Your task to perform on an android device: Open wifi settings Image 0: 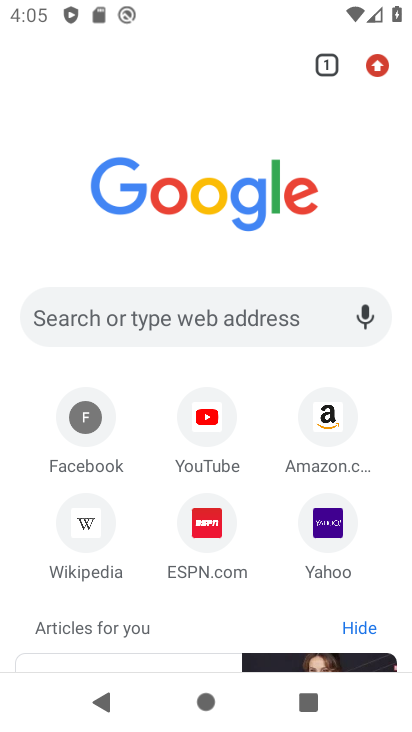
Step 0: press home button
Your task to perform on an android device: Open wifi settings Image 1: 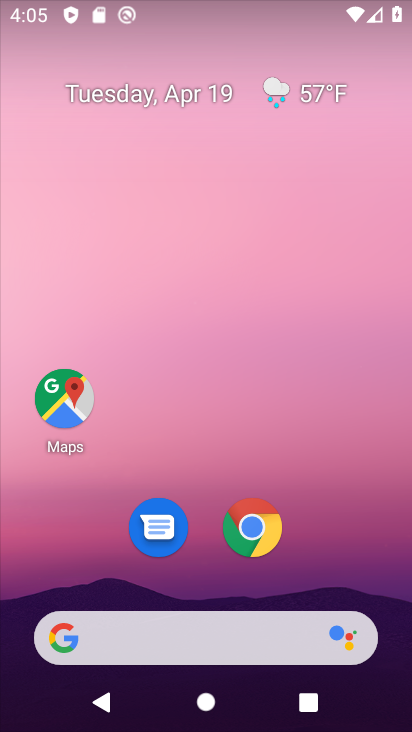
Step 1: drag from (380, 582) to (306, 79)
Your task to perform on an android device: Open wifi settings Image 2: 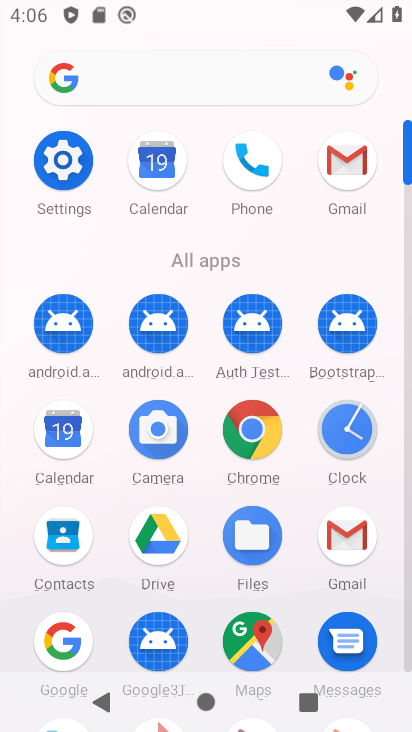
Step 2: click (407, 651)
Your task to perform on an android device: Open wifi settings Image 3: 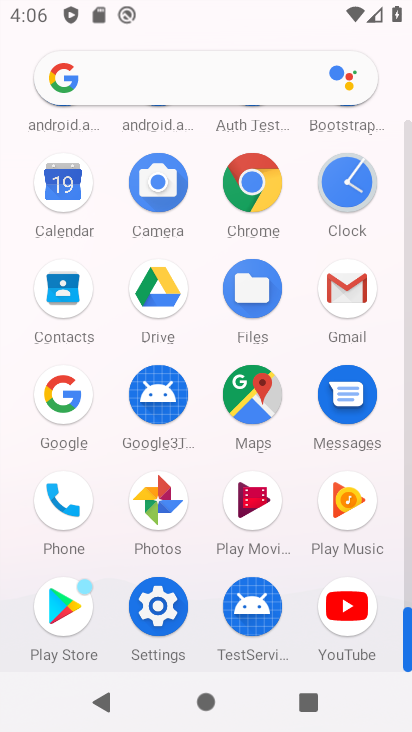
Step 3: click (156, 607)
Your task to perform on an android device: Open wifi settings Image 4: 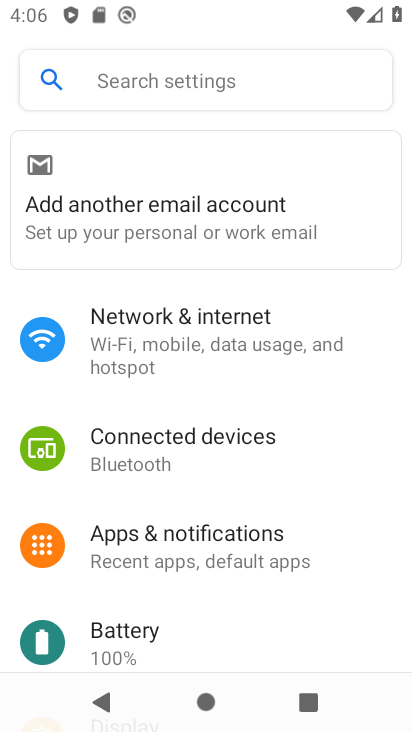
Step 4: click (127, 349)
Your task to perform on an android device: Open wifi settings Image 5: 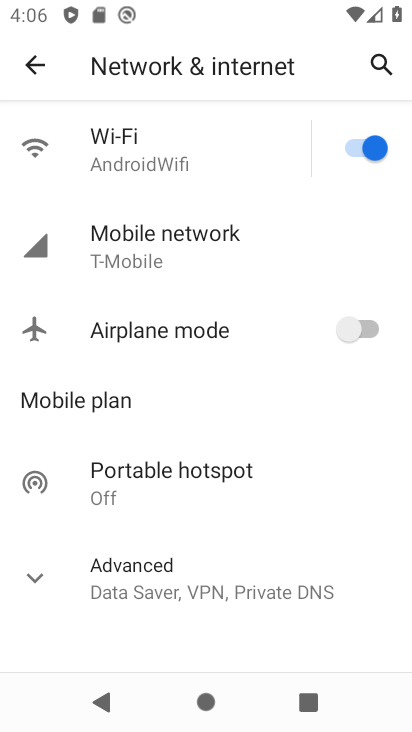
Step 5: click (126, 152)
Your task to perform on an android device: Open wifi settings Image 6: 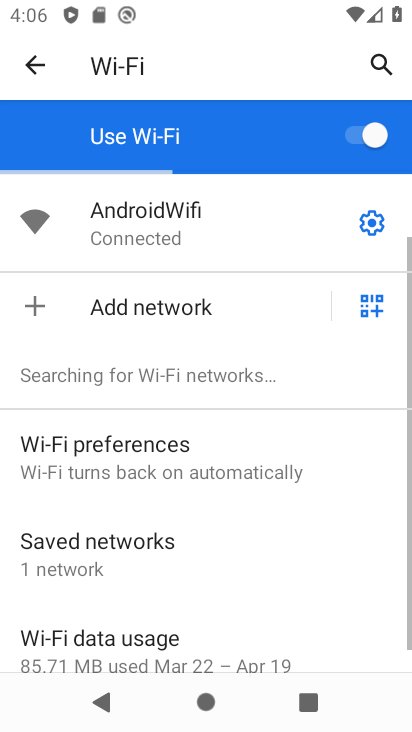
Step 6: click (375, 220)
Your task to perform on an android device: Open wifi settings Image 7: 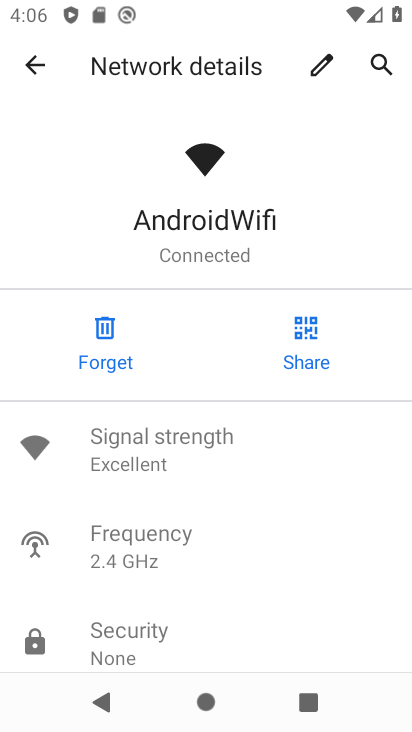
Step 7: drag from (223, 522) to (212, 191)
Your task to perform on an android device: Open wifi settings Image 8: 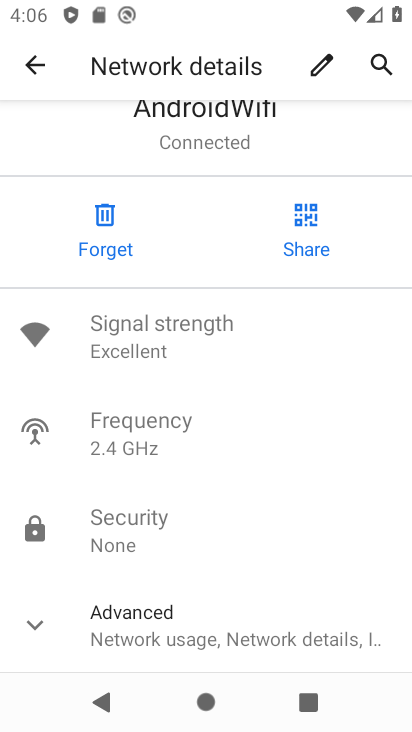
Step 8: drag from (206, 595) to (207, 140)
Your task to perform on an android device: Open wifi settings Image 9: 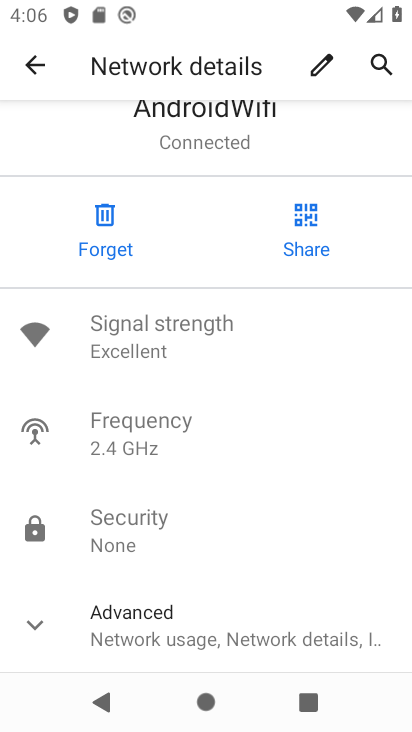
Step 9: click (38, 631)
Your task to perform on an android device: Open wifi settings Image 10: 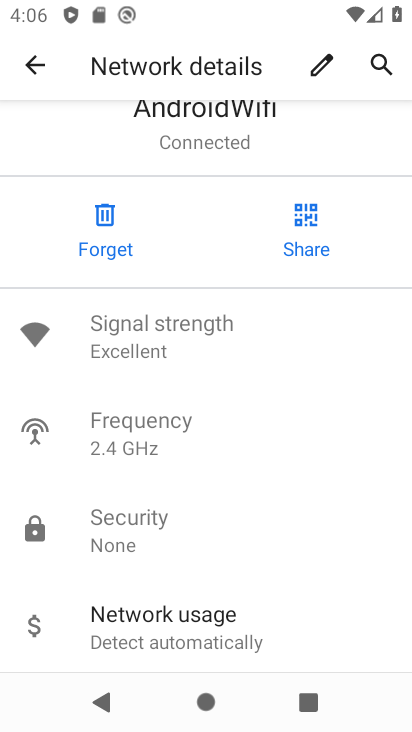
Step 10: task complete